Your task to perform on an android device: see tabs open on other devices in the chrome app Image 0: 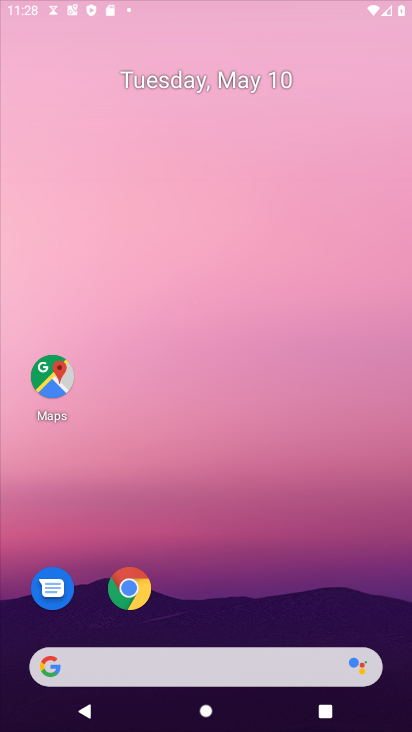
Step 0: drag from (313, 540) to (126, 147)
Your task to perform on an android device: see tabs open on other devices in the chrome app Image 1: 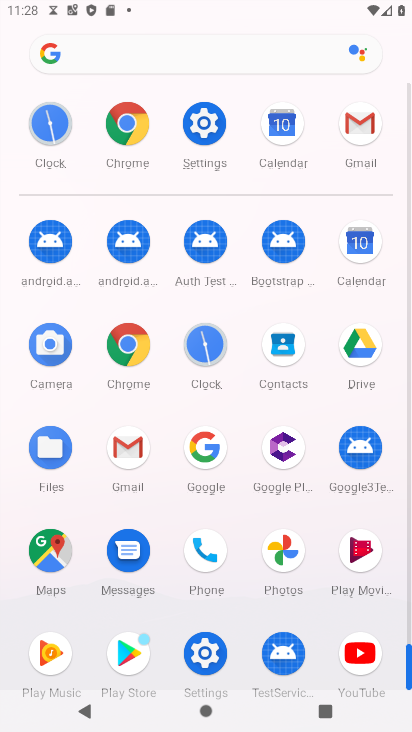
Step 1: click (123, 140)
Your task to perform on an android device: see tabs open on other devices in the chrome app Image 2: 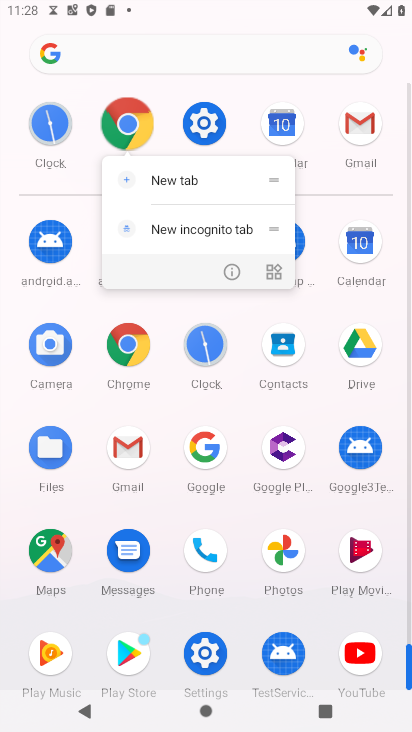
Step 2: click (127, 134)
Your task to perform on an android device: see tabs open on other devices in the chrome app Image 3: 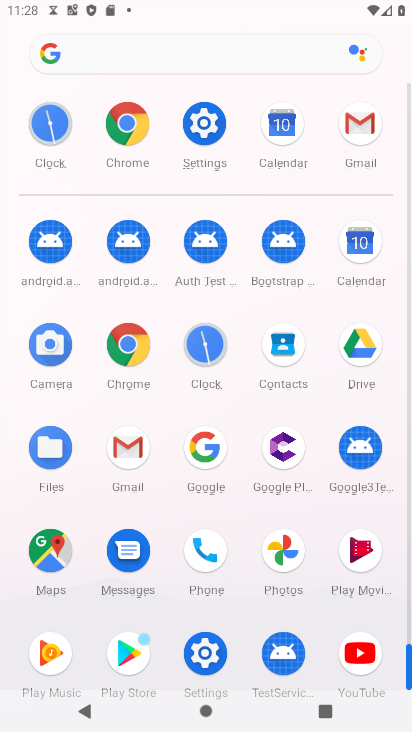
Step 3: click (132, 142)
Your task to perform on an android device: see tabs open on other devices in the chrome app Image 4: 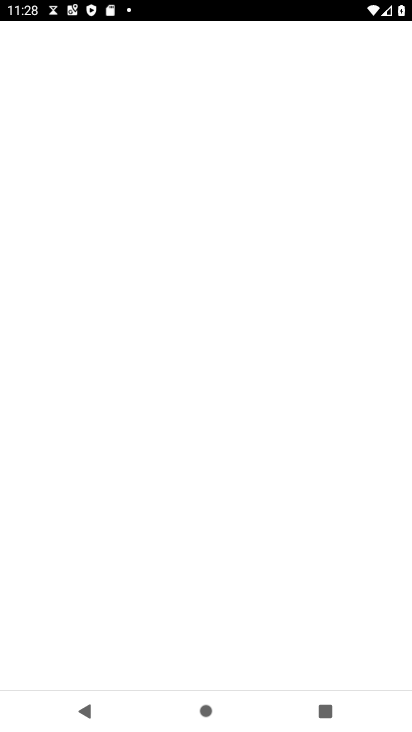
Step 4: click (131, 135)
Your task to perform on an android device: see tabs open on other devices in the chrome app Image 5: 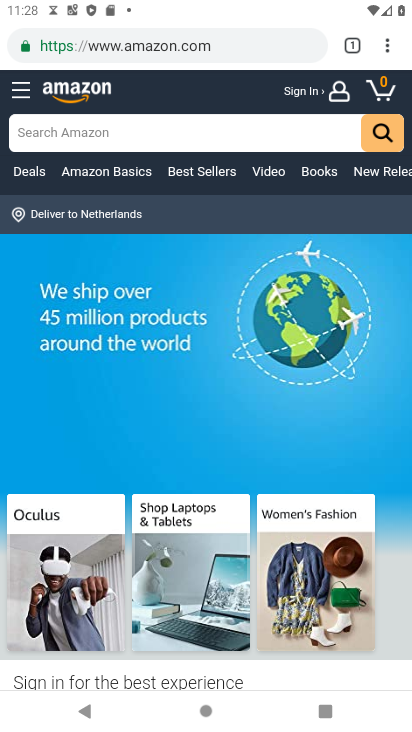
Step 5: drag from (387, 40) to (221, 210)
Your task to perform on an android device: see tabs open on other devices in the chrome app Image 6: 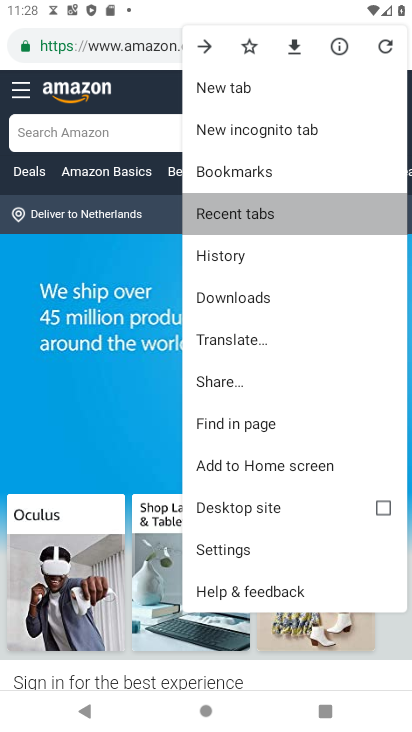
Step 6: click (222, 211)
Your task to perform on an android device: see tabs open on other devices in the chrome app Image 7: 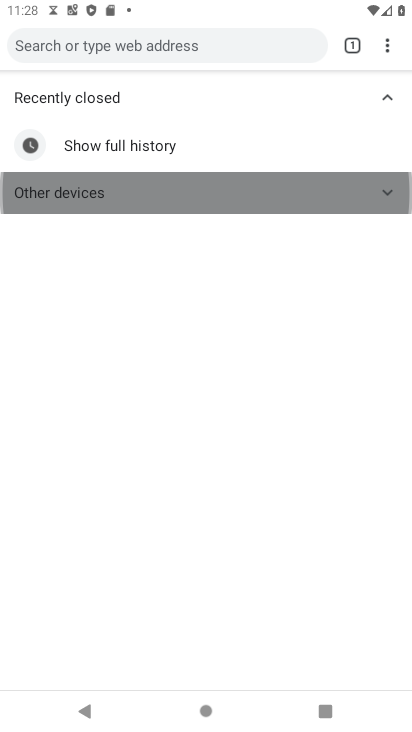
Step 7: click (222, 211)
Your task to perform on an android device: see tabs open on other devices in the chrome app Image 8: 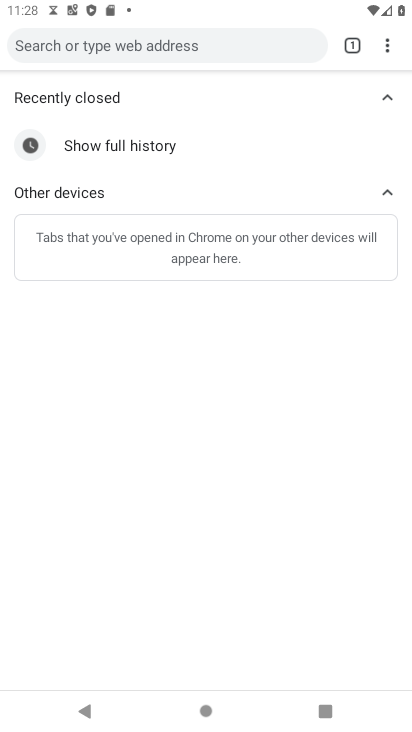
Step 8: task complete